Your task to perform on an android device: Do I have any events this weekend? Image 0: 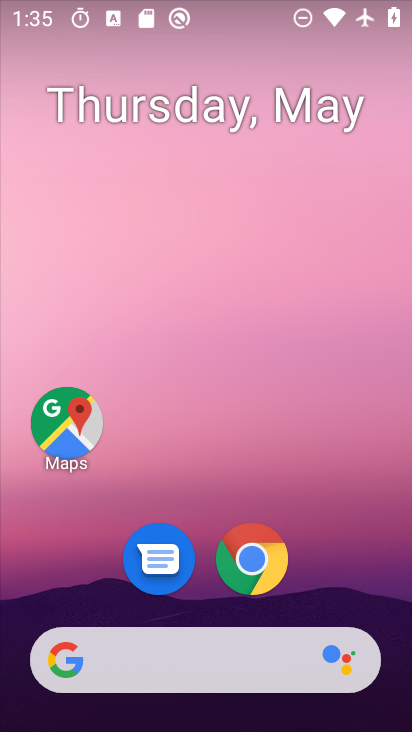
Step 0: drag from (233, 670) to (223, 182)
Your task to perform on an android device: Do I have any events this weekend? Image 1: 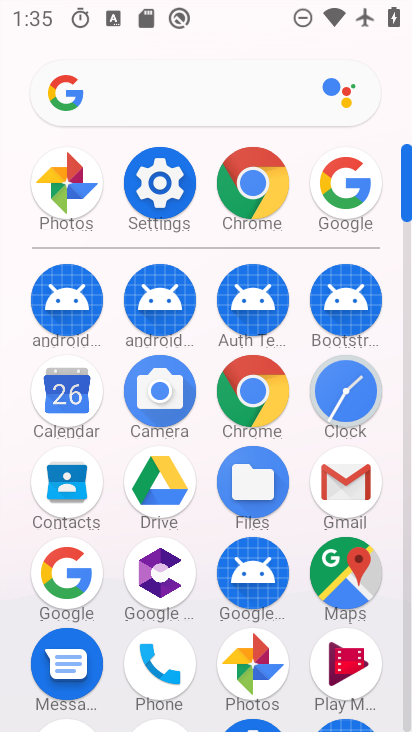
Step 1: drag from (202, 498) to (229, 239)
Your task to perform on an android device: Do I have any events this weekend? Image 2: 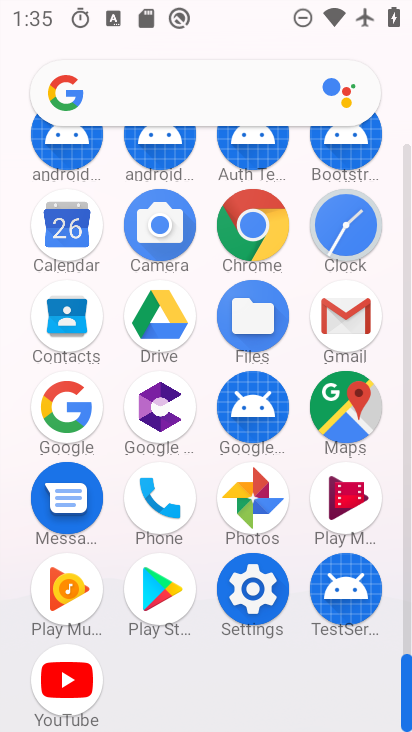
Step 2: drag from (225, 520) to (245, 329)
Your task to perform on an android device: Do I have any events this weekend? Image 3: 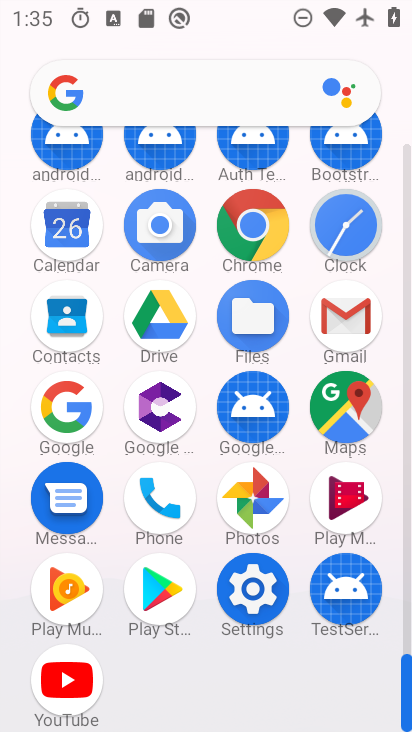
Step 3: click (80, 235)
Your task to perform on an android device: Do I have any events this weekend? Image 4: 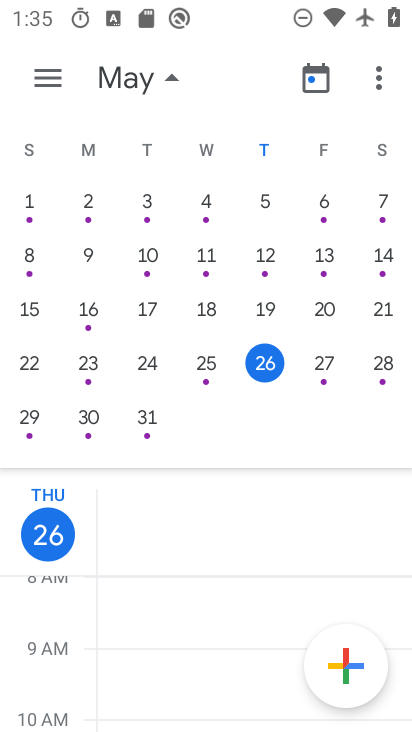
Step 4: click (388, 376)
Your task to perform on an android device: Do I have any events this weekend? Image 5: 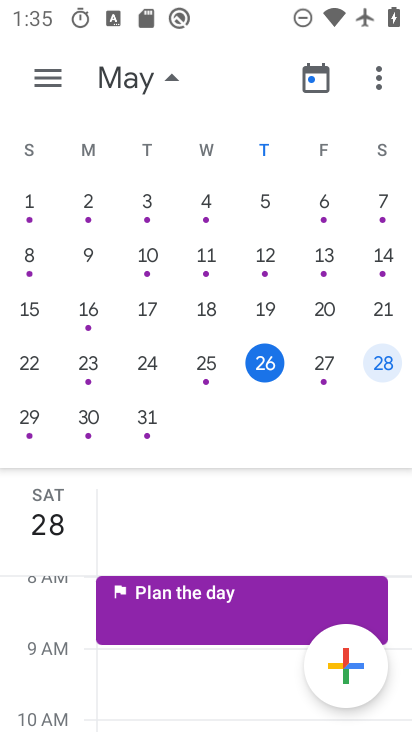
Step 5: task complete